Your task to perform on an android device: open the mobile data screen to see how much data has been used Image 0: 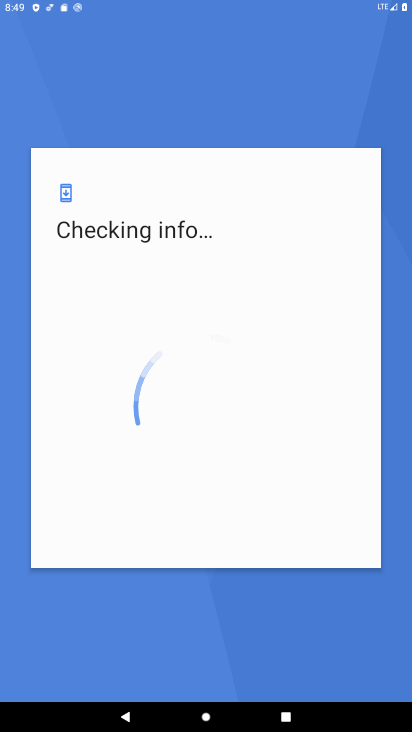
Step 0: press home button
Your task to perform on an android device: open the mobile data screen to see how much data has been used Image 1: 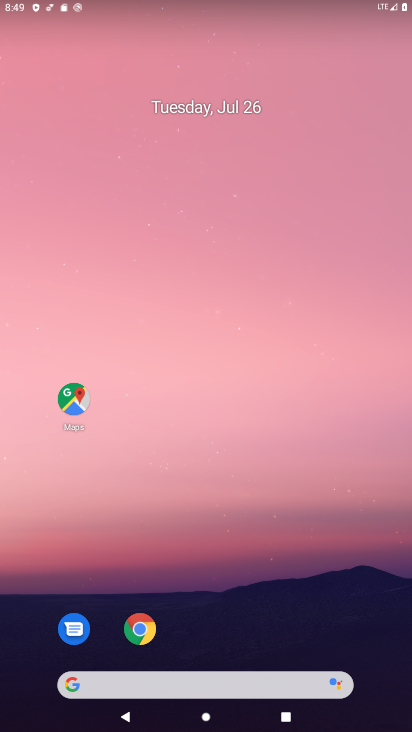
Step 1: drag from (218, 630) to (187, 9)
Your task to perform on an android device: open the mobile data screen to see how much data has been used Image 2: 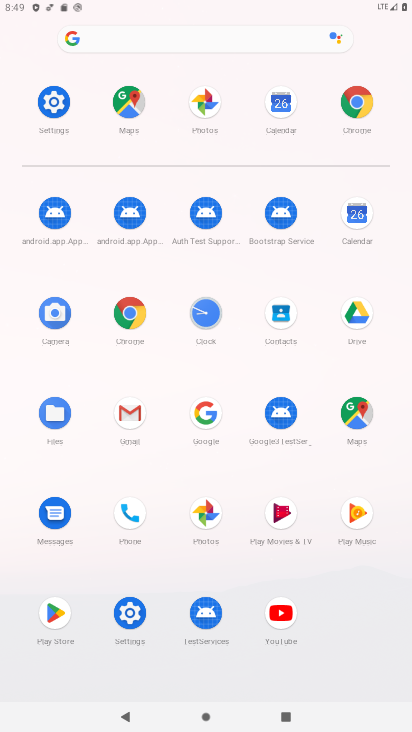
Step 2: click (65, 122)
Your task to perform on an android device: open the mobile data screen to see how much data has been used Image 3: 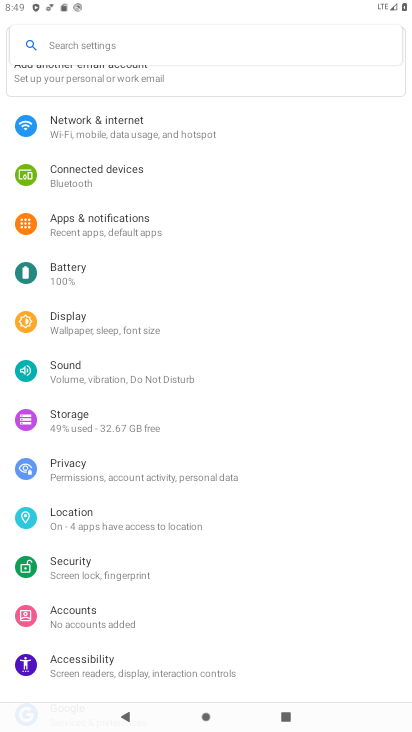
Step 3: click (75, 116)
Your task to perform on an android device: open the mobile data screen to see how much data has been used Image 4: 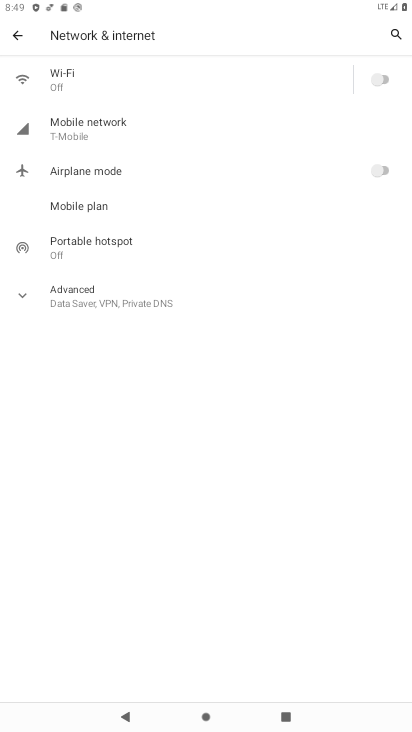
Step 4: click (75, 116)
Your task to perform on an android device: open the mobile data screen to see how much data has been used Image 5: 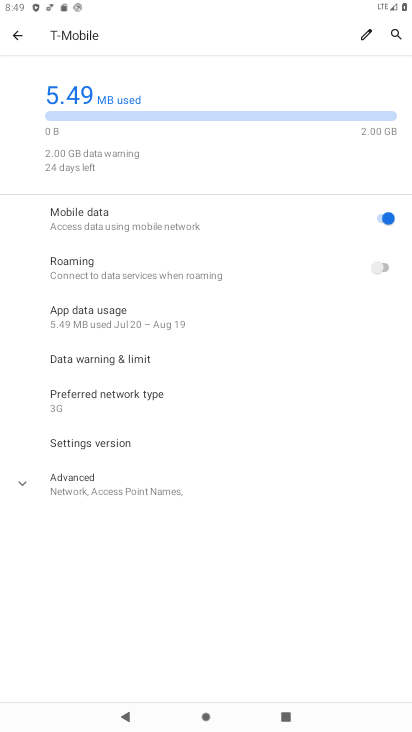
Step 5: click (94, 90)
Your task to perform on an android device: open the mobile data screen to see how much data has been used Image 6: 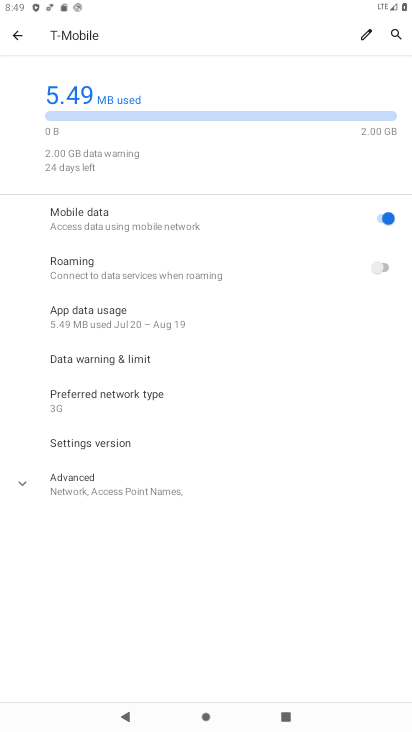
Step 6: task complete